Your task to perform on an android device: turn on the 12-hour format for clock Image 0: 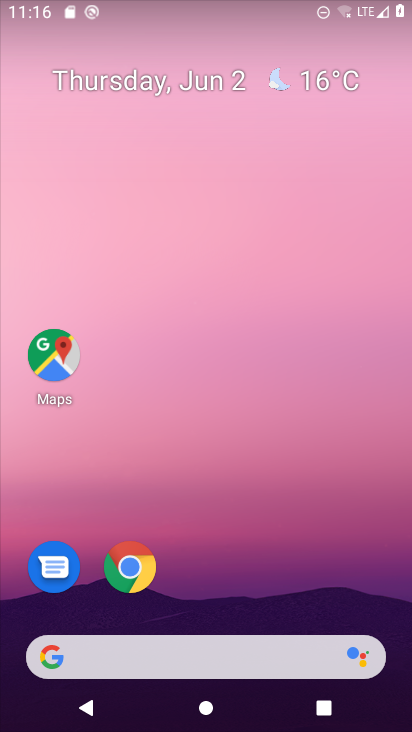
Step 0: drag from (243, 552) to (263, 124)
Your task to perform on an android device: turn on the 12-hour format for clock Image 1: 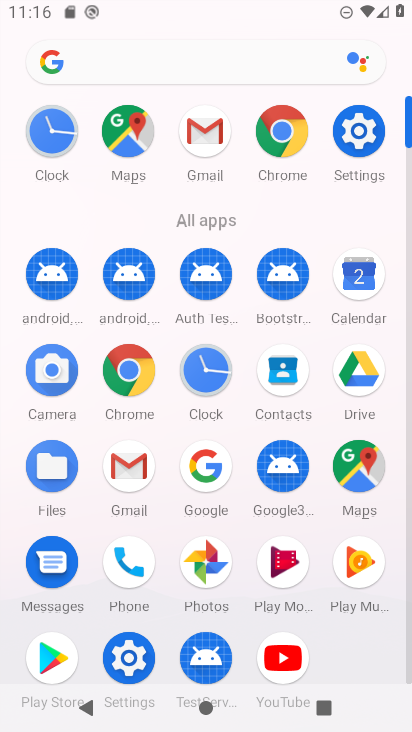
Step 1: click (218, 368)
Your task to perform on an android device: turn on the 12-hour format for clock Image 2: 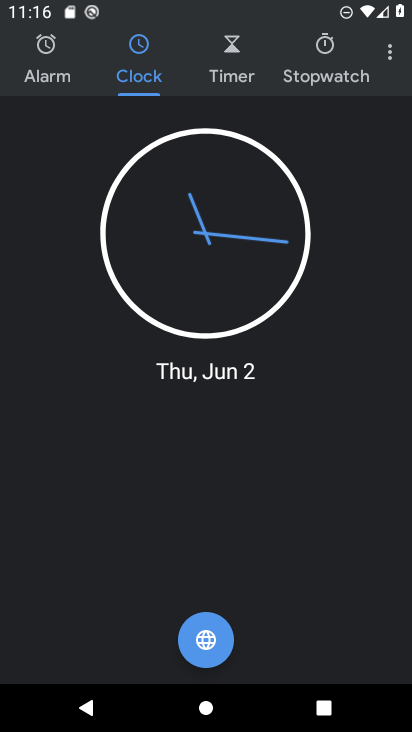
Step 2: click (386, 55)
Your task to perform on an android device: turn on the 12-hour format for clock Image 3: 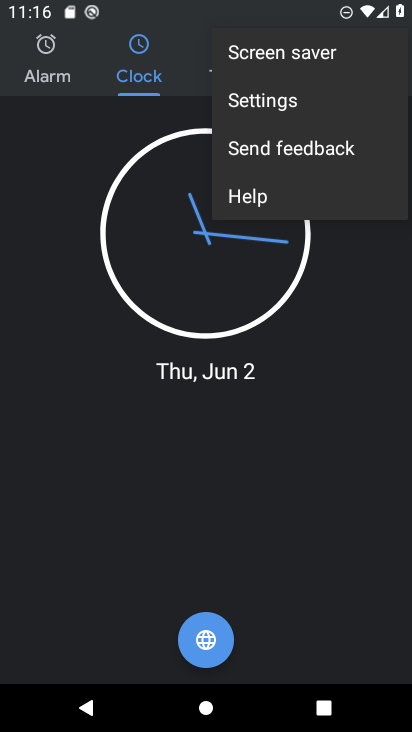
Step 3: click (268, 105)
Your task to perform on an android device: turn on the 12-hour format for clock Image 4: 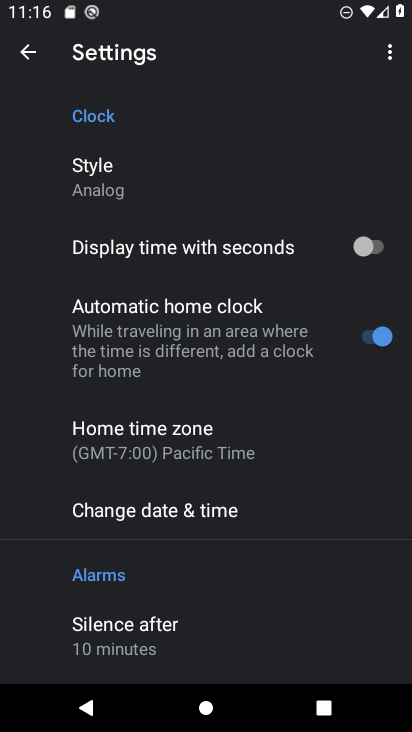
Step 4: click (192, 509)
Your task to perform on an android device: turn on the 12-hour format for clock Image 5: 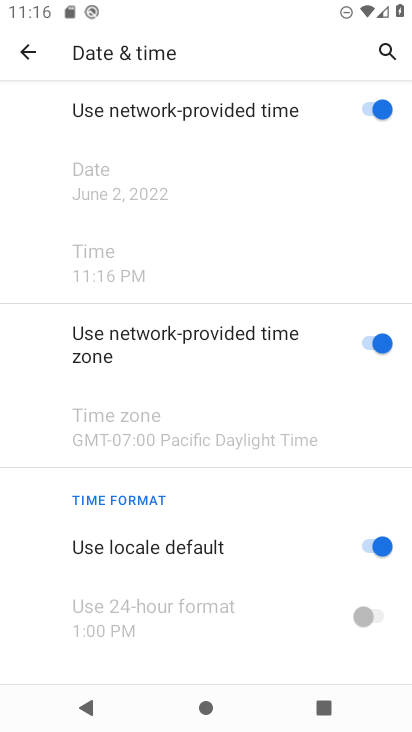
Step 5: task complete